Your task to perform on an android device: stop showing notifications on the lock screen Image 0: 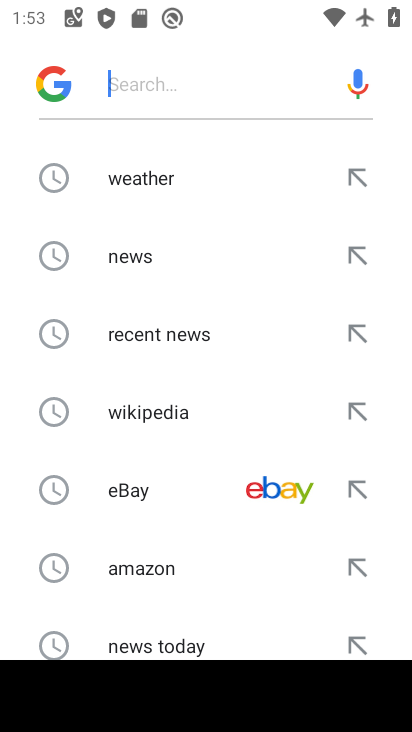
Step 0: press home button
Your task to perform on an android device: stop showing notifications on the lock screen Image 1: 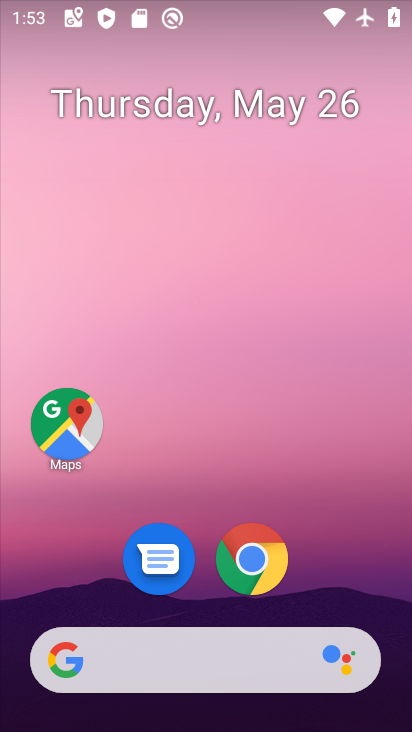
Step 1: drag from (195, 638) to (331, 58)
Your task to perform on an android device: stop showing notifications on the lock screen Image 2: 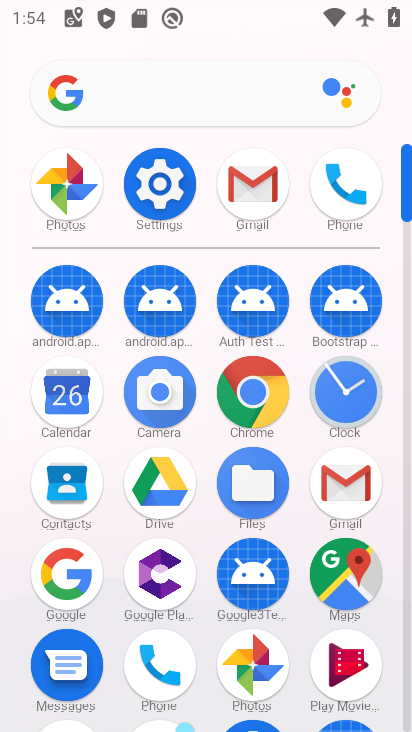
Step 2: click (156, 197)
Your task to perform on an android device: stop showing notifications on the lock screen Image 3: 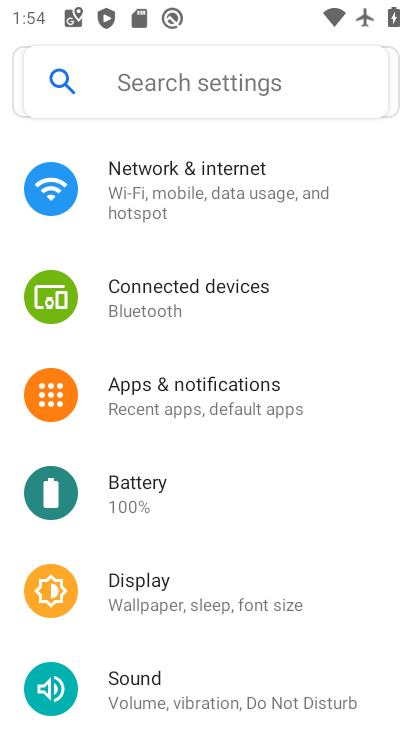
Step 3: click (210, 390)
Your task to perform on an android device: stop showing notifications on the lock screen Image 4: 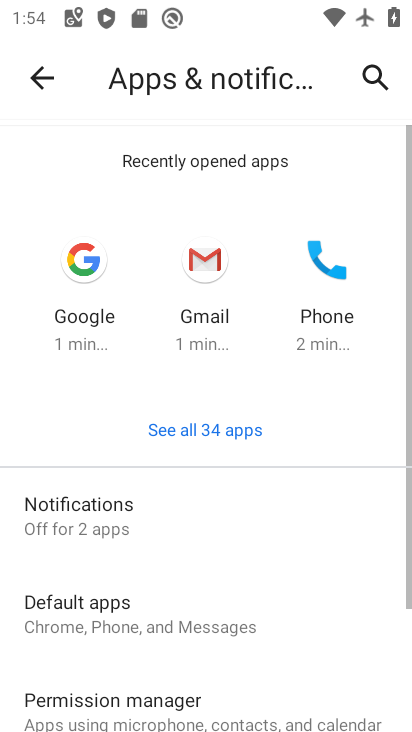
Step 4: click (103, 510)
Your task to perform on an android device: stop showing notifications on the lock screen Image 5: 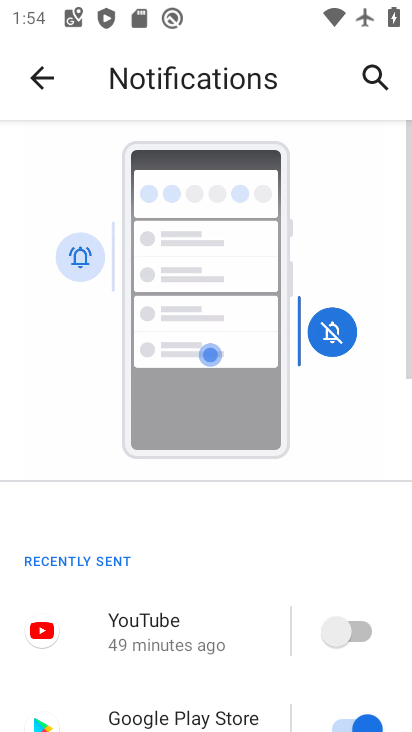
Step 5: drag from (240, 631) to (358, 119)
Your task to perform on an android device: stop showing notifications on the lock screen Image 6: 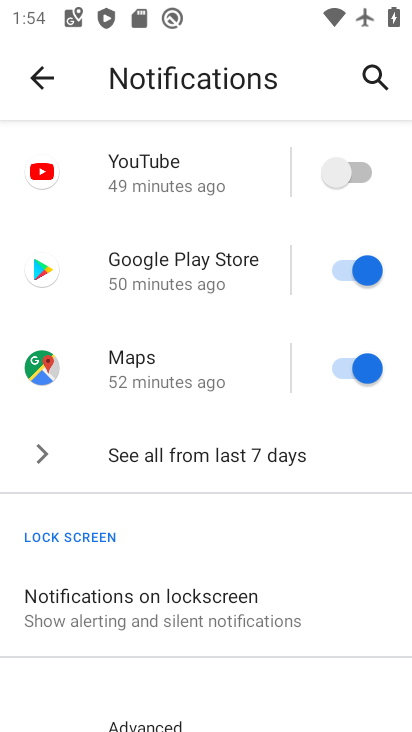
Step 6: click (191, 605)
Your task to perform on an android device: stop showing notifications on the lock screen Image 7: 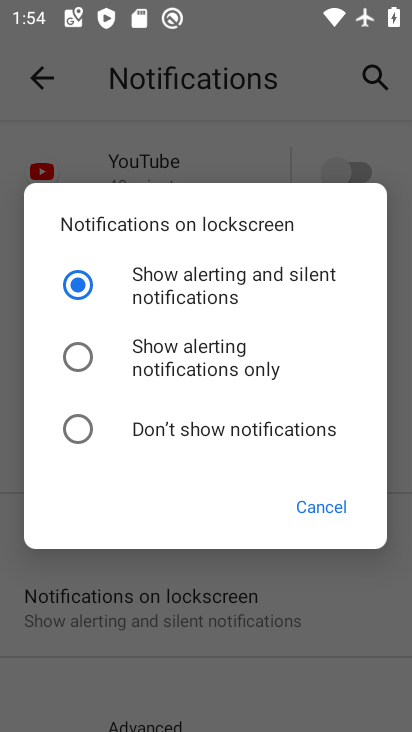
Step 7: click (74, 434)
Your task to perform on an android device: stop showing notifications on the lock screen Image 8: 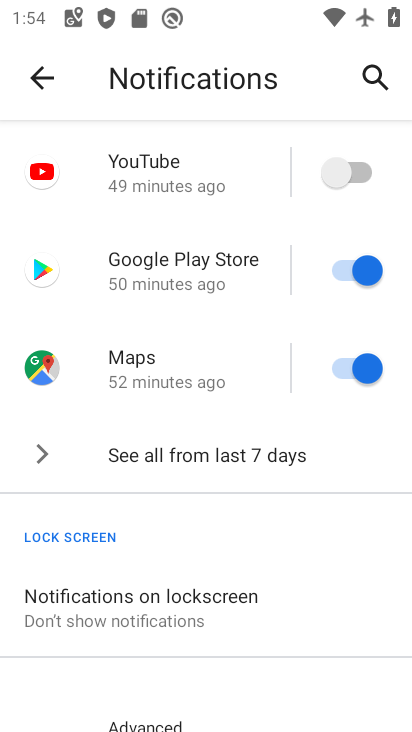
Step 8: task complete